Your task to perform on an android device: Open CNN.com Image 0: 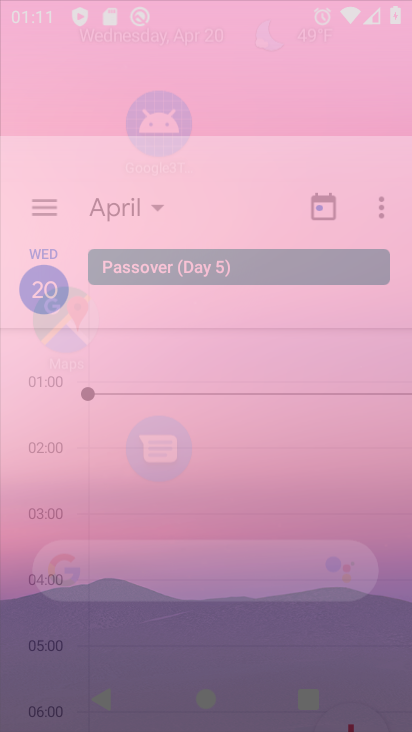
Step 0: click (262, 94)
Your task to perform on an android device: Open CNN.com Image 1: 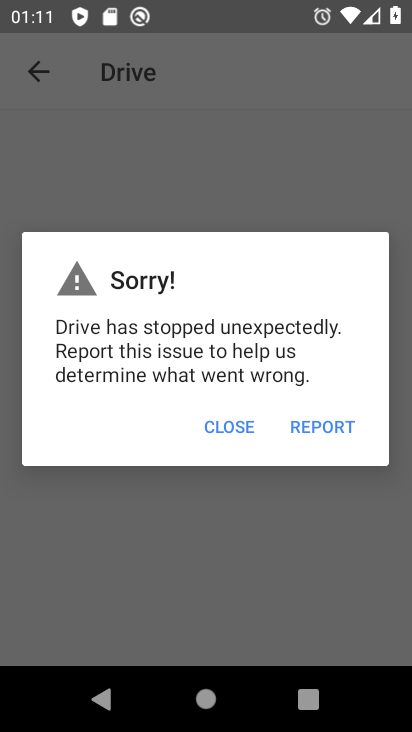
Step 1: press home button
Your task to perform on an android device: Open CNN.com Image 2: 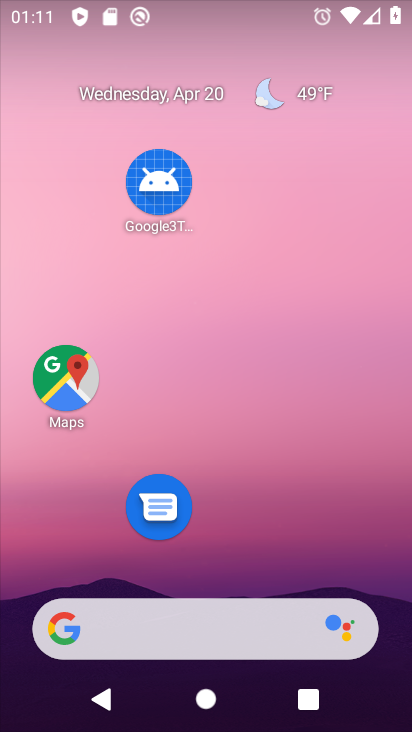
Step 2: drag from (230, 487) to (275, 15)
Your task to perform on an android device: Open CNN.com Image 3: 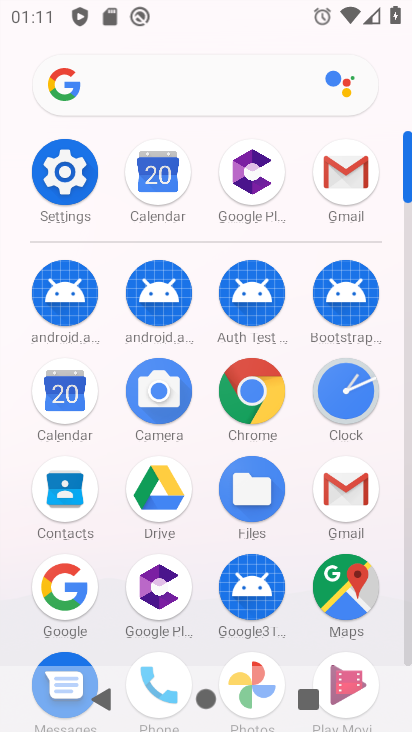
Step 3: click (252, 398)
Your task to perform on an android device: Open CNN.com Image 4: 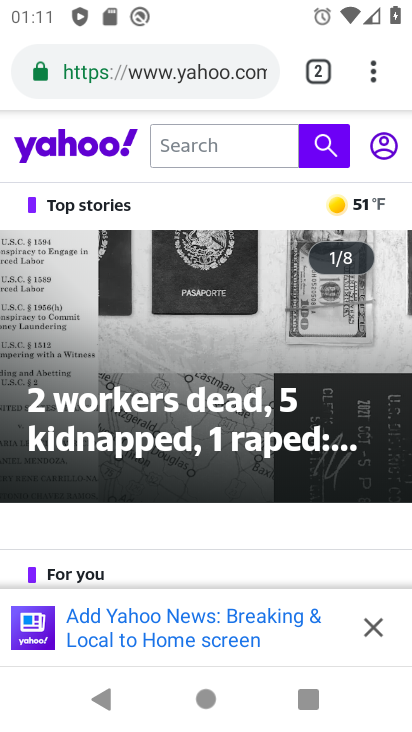
Step 4: click (367, 74)
Your task to perform on an android device: Open CNN.com Image 5: 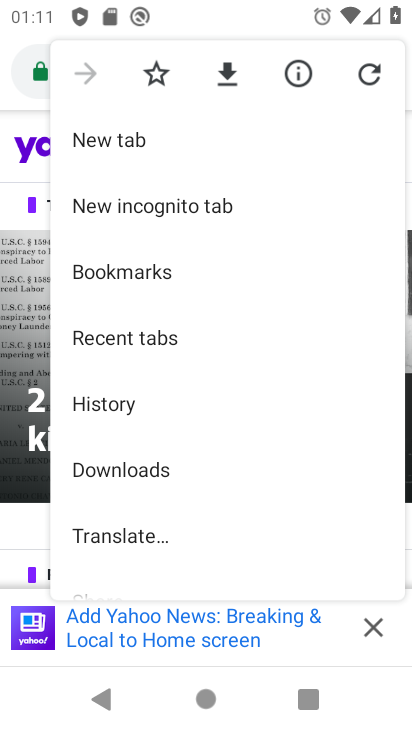
Step 5: click (129, 140)
Your task to perform on an android device: Open CNN.com Image 6: 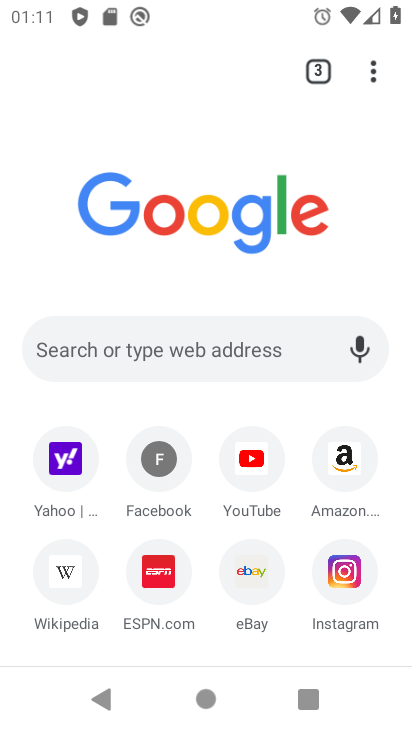
Step 6: click (220, 347)
Your task to perform on an android device: Open CNN.com Image 7: 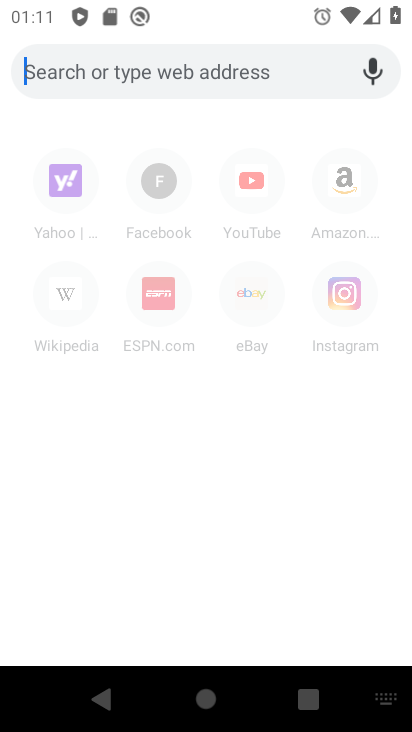
Step 7: type "CNN.com"
Your task to perform on an android device: Open CNN.com Image 8: 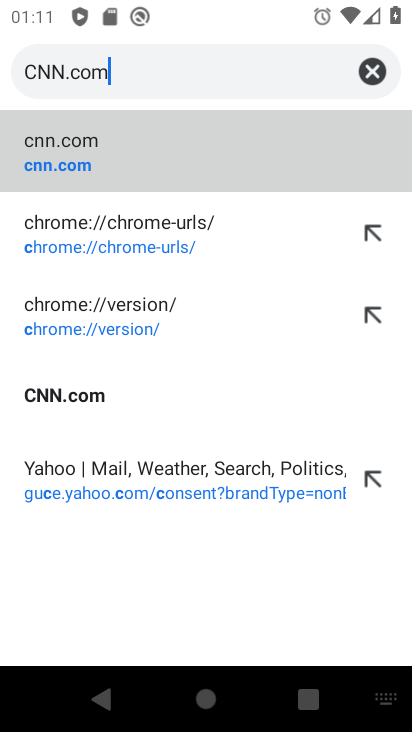
Step 8: type ""
Your task to perform on an android device: Open CNN.com Image 9: 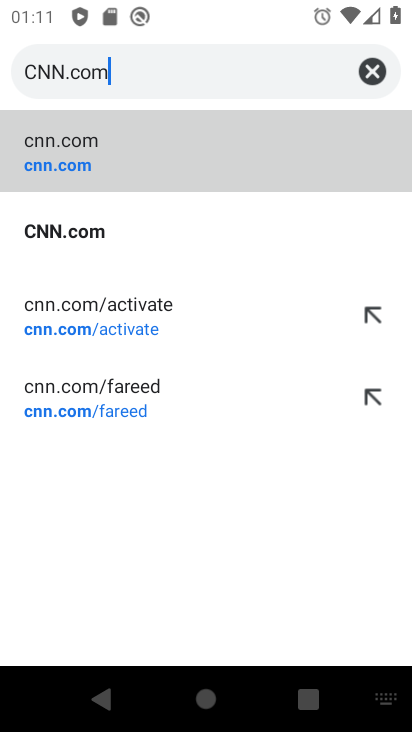
Step 9: click (79, 229)
Your task to perform on an android device: Open CNN.com Image 10: 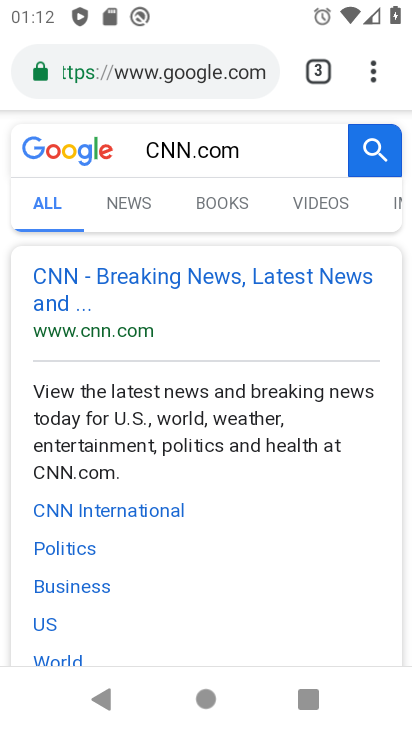
Step 10: task complete